Your task to perform on an android device: turn pop-ups on in chrome Image 0: 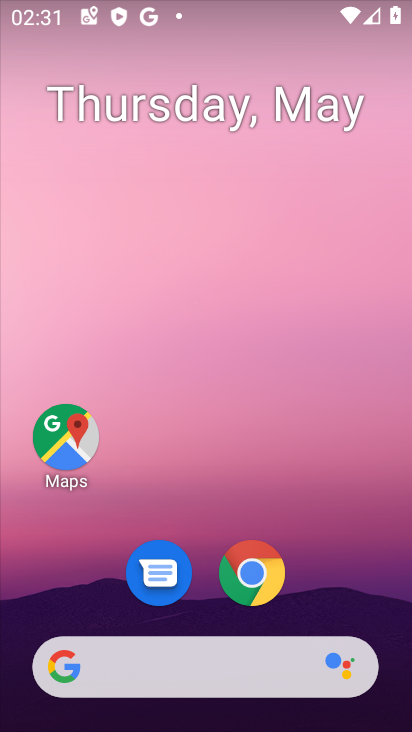
Step 0: drag from (304, 569) to (317, 326)
Your task to perform on an android device: turn pop-ups on in chrome Image 1: 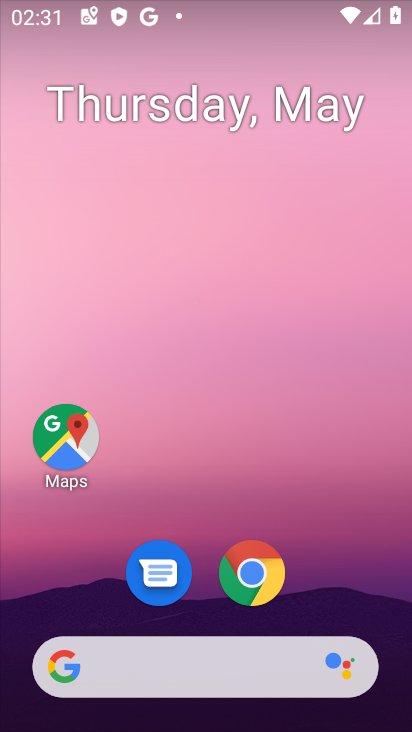
Step 1: click (259, 560)
Your task to perform on an android device: turn pop-ups on in chrome Image 2: 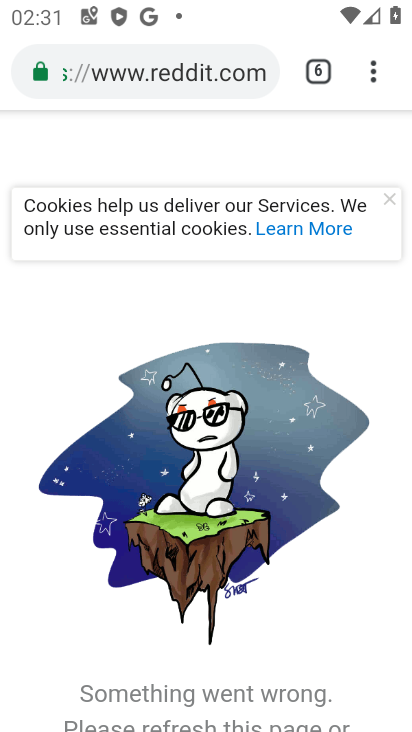
Step 2: click (373, 69)
Your task to perform on an android device: turn pop-ups on in chrome Image 3: 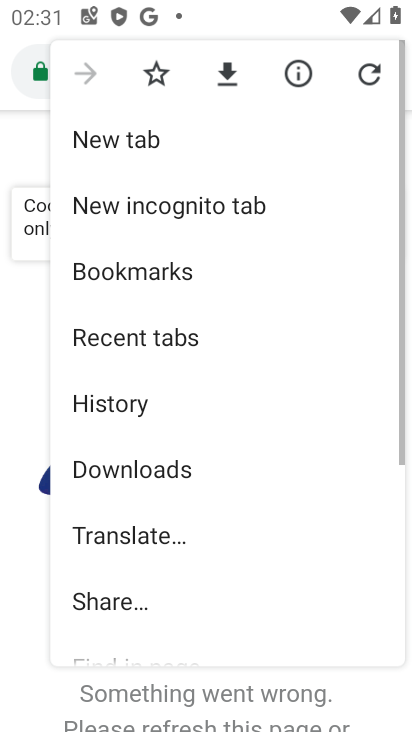
Step 3: drag from (191, 570) to (235, 256)
Your task to perform on an android device: turn pop-ups on in chrome Image 4: 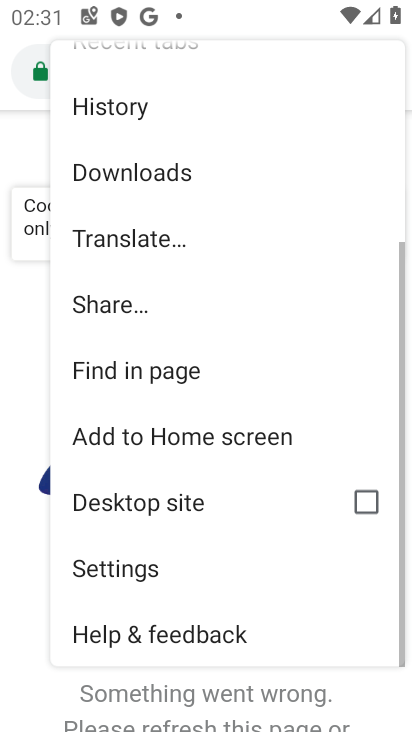
Step 4: click (164, 577)
Your task to perform on an android device: turn pop-ups on in chrome Image 5: 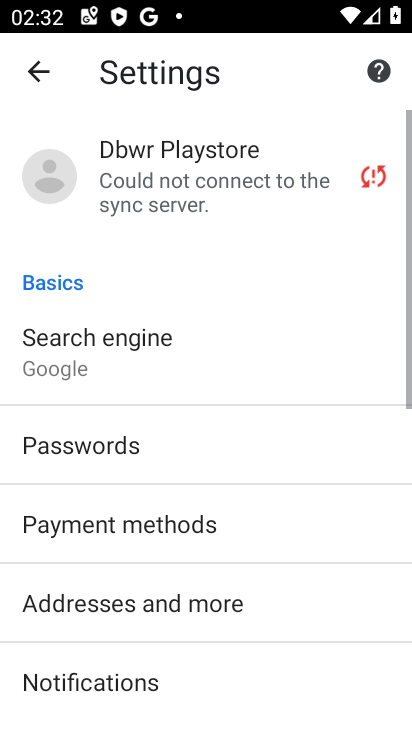
Step 5: drag from (189, 609) to (234, 200)
Your task to perform on an android device: turn pop-ups on in chrome Image 6: 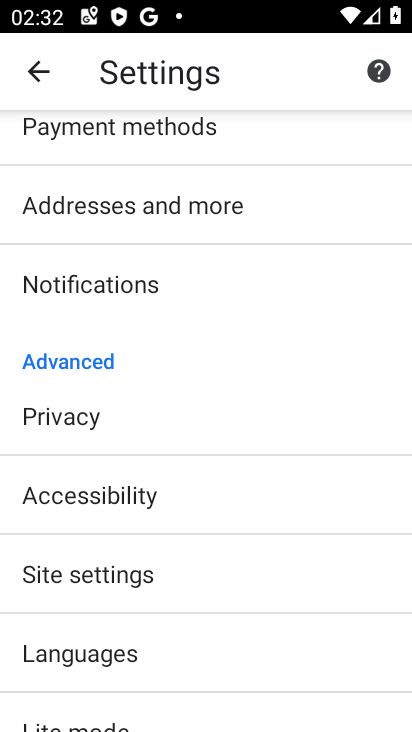
Step 6: click (109, 570)
Your task to perform on an android device: turn pop-ups on in chrome Image 7: 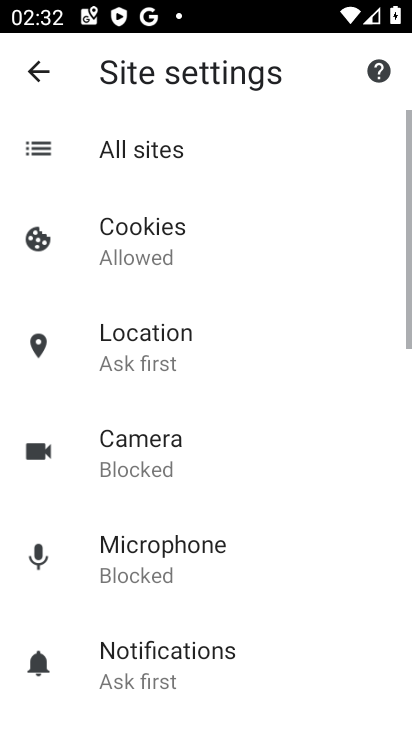
Step 7: drag from (205, 627) to (205, 241)
Your task to perform on an android device: turn pop-ups on in chrome Image 8: 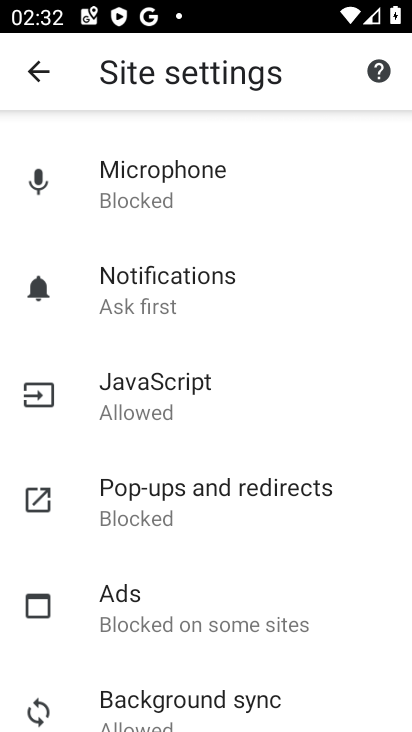
Step 8: click (171, 497)
Your task to perform on an android device: turn pop-ups on in chrome Image 9: 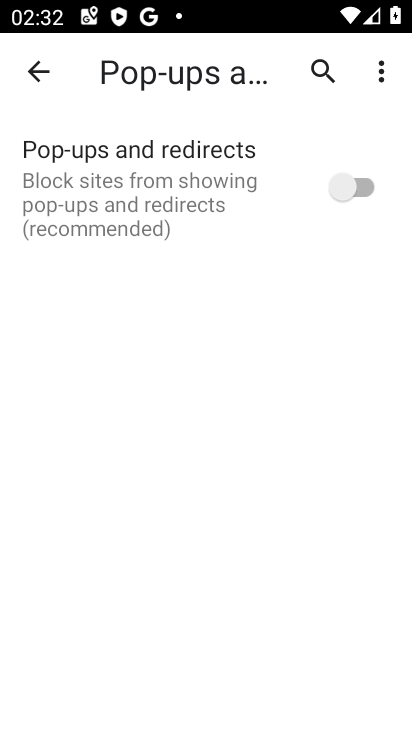
Step 9: click (347, 187)
Your task to perform on an android device: turn pop-ups on in chrome Image 10: 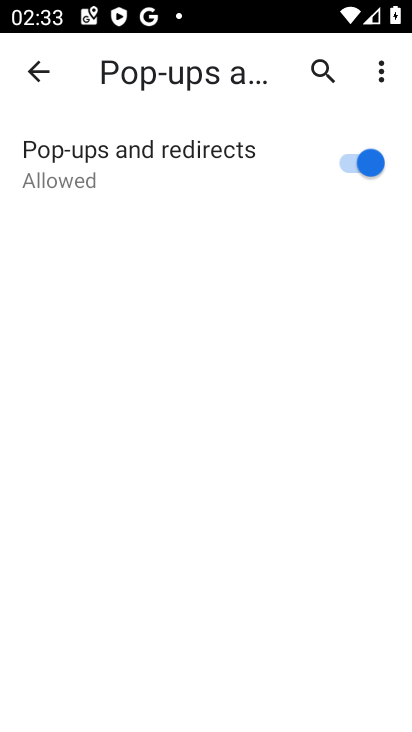
Step 10: task complete